Your task to perform on an android device: turn off sleep mode Image 0: 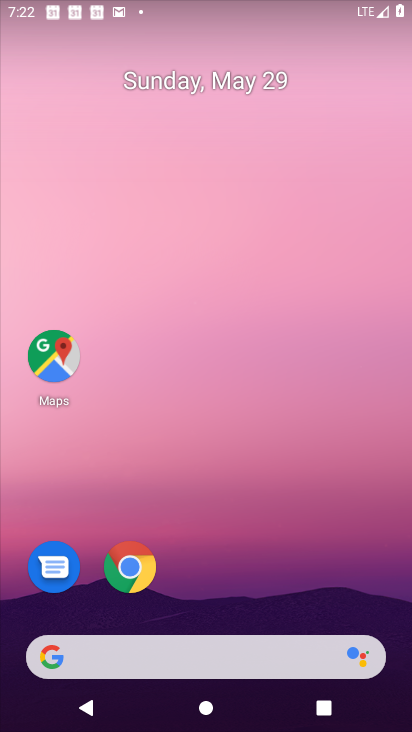
Step 0: drag from (175, 604) to (196, 241)
Your task to perform on an android device: turn off sleep mode Image 1: 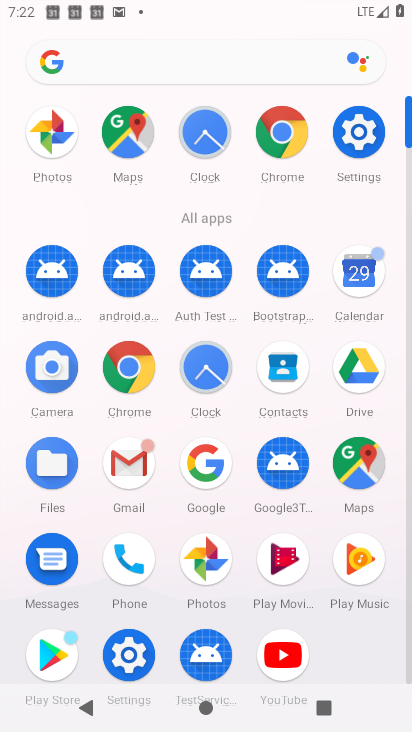
Step 1: click (356, 130)
Your task to perform on an android device: turn off sleep mode Image 2: 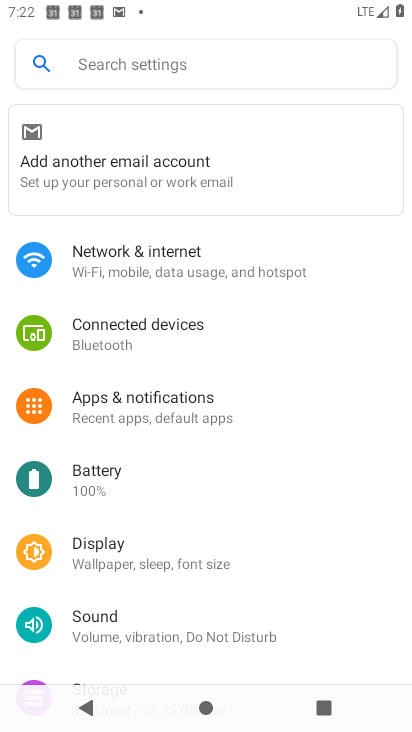
Step 2: task complete